Your task to perform on an android device: read, delete, or share a saved page in the chrome app Image 0: 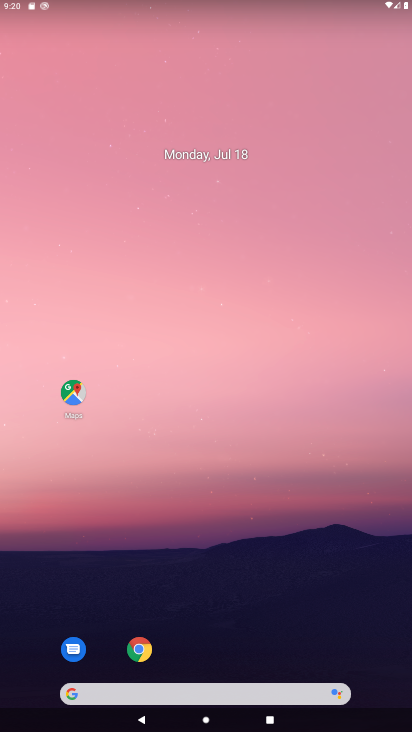
Step 0: drag from (236, 464) to (200, 2)
Your task to perform on an android device: read, delete, or share a saved page in the chrome app Image 1: 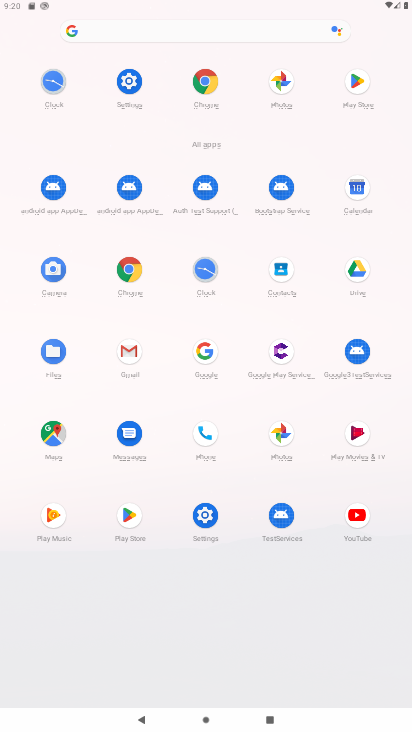
Step 1: click (197, 82)
Your task to perform on an android device: read, delete, or share a saved page in the chrome app Image 2: 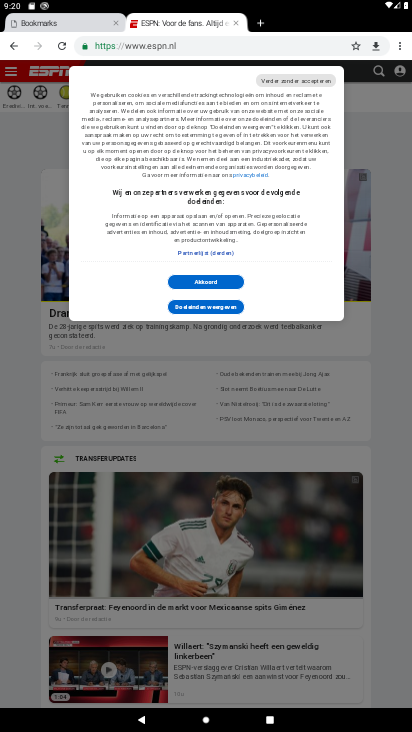
Step 2: click (402, 46)
Your task to perform on an android device: read, delete, or share a saved page in the chrome app Image 3: 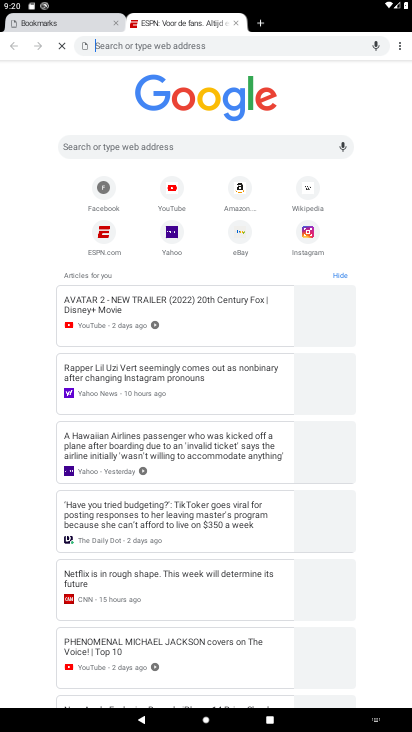
Step 3: click (399, 46)
Your task to perform on an android device: read, delete, or share a saved page in the chrome app Image 4: 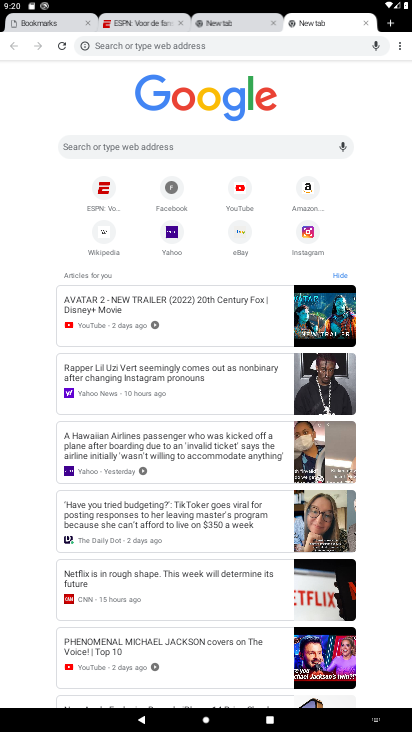
Step 4: click (361, 22)
Your task to perform on an android device: read, delete, or share a saved page in the chrome app Image 5: 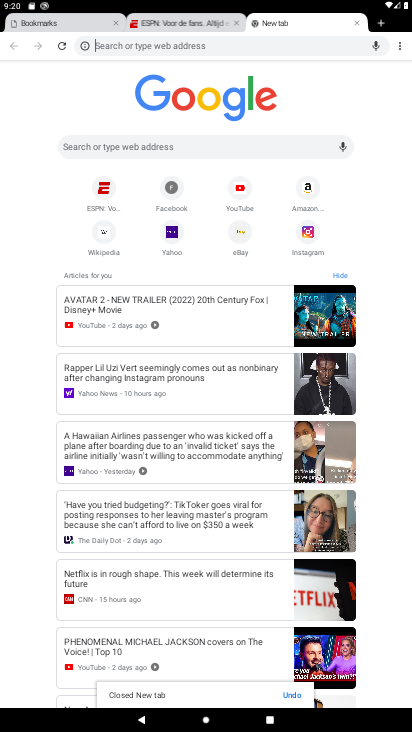
Step 5: click (355, 18)
Your task to perform on an android device: read, delete, or share a saved page in the chrome app Image 6: 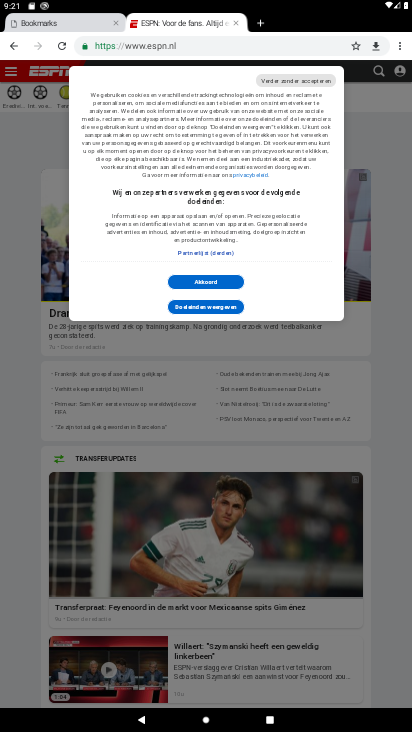
Step 6: drag from (406, 49) to (288, 167)
Your task to perform on an android device: read, delete, or share a saved page in the chrome app Image 7: 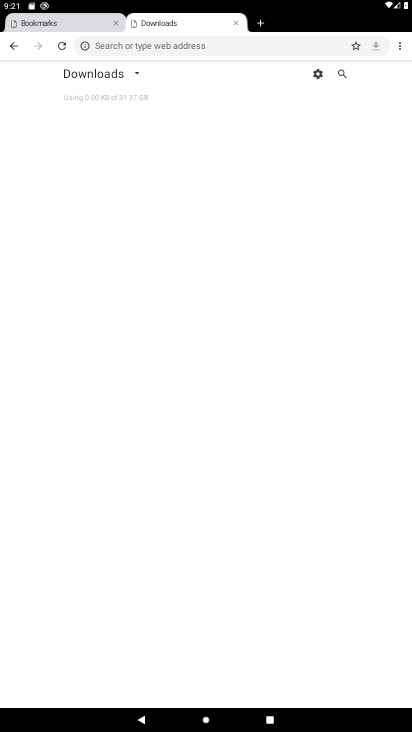
Step 7: click (142, 76)
Your task to perform on an android device: read, delete, or share a saved page in the chrome app Image 8: 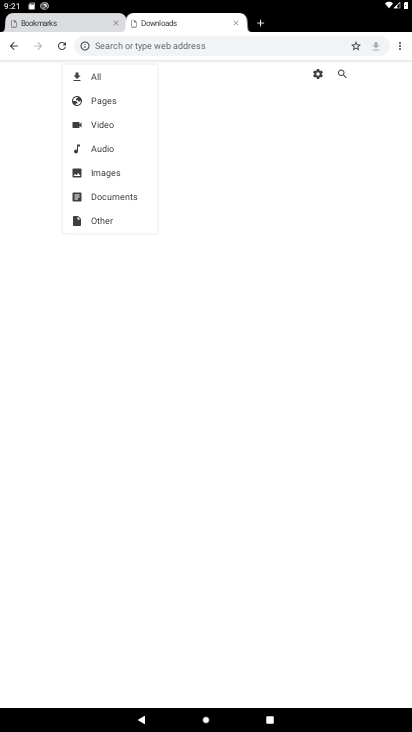
Step 8: click (114, 94)
Your task to perform on an android device: read, delete, or share a saved page in the chrome app Image 9: 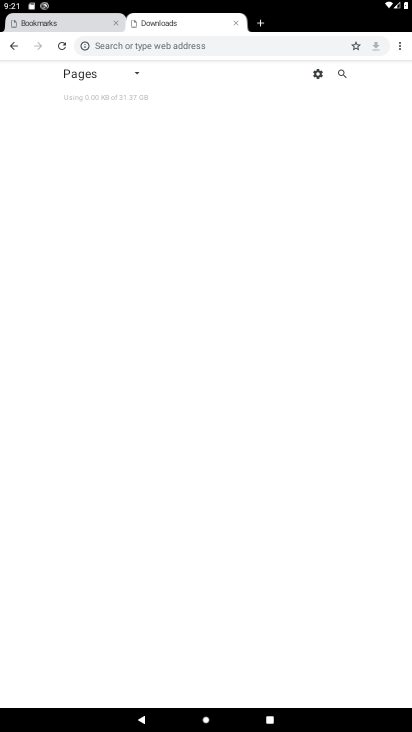
Step 9: task complete